Your task to perform on an android device: all mails in gmail Image 0: 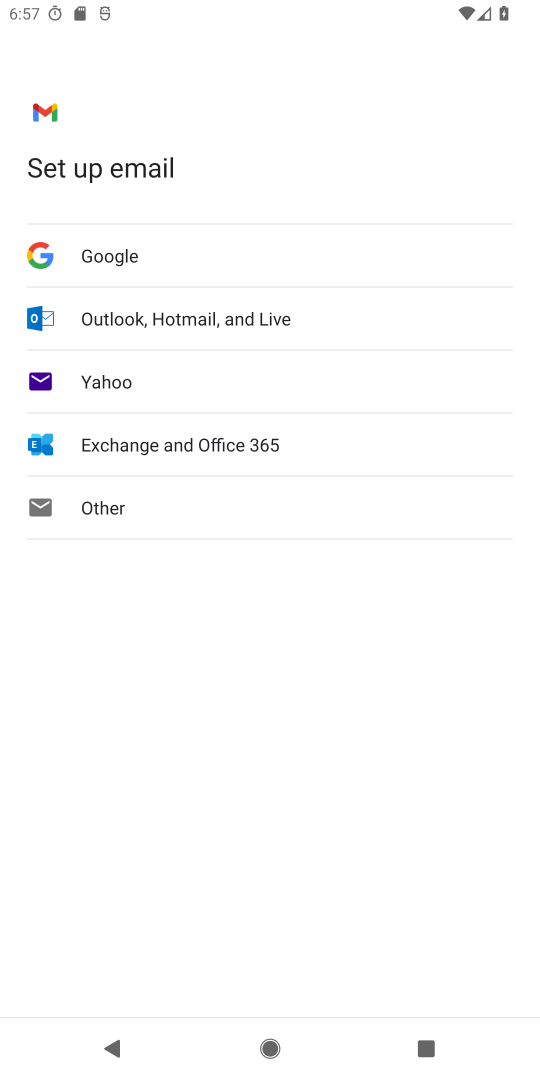
Step 0: press back button
Your task to perform on an android device: all mails in gmail Image 1: 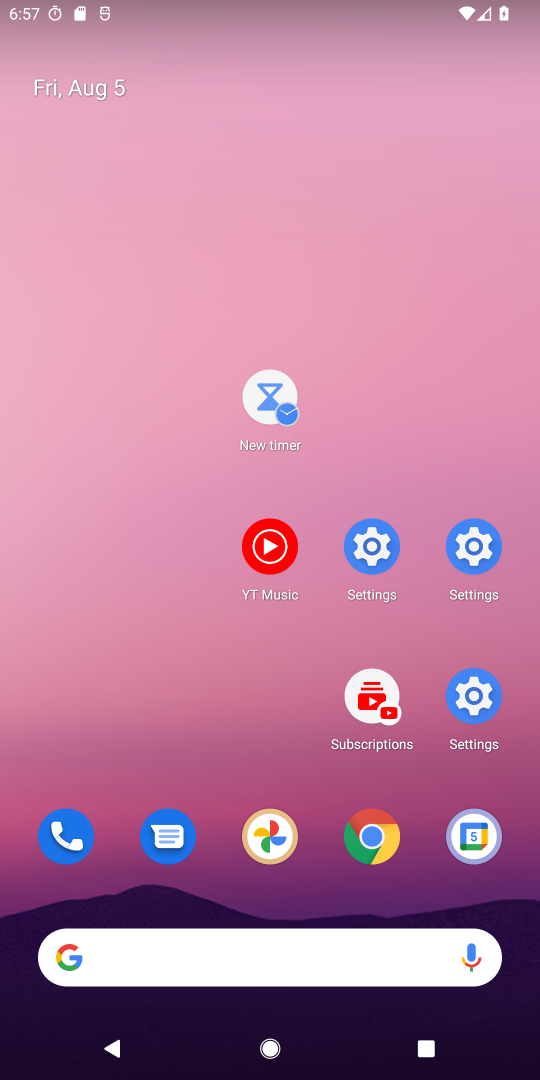
Step 1: drag from (320, 952) to (195, 2)
Your task to perform on an android device: all mails in gmail Image 2: 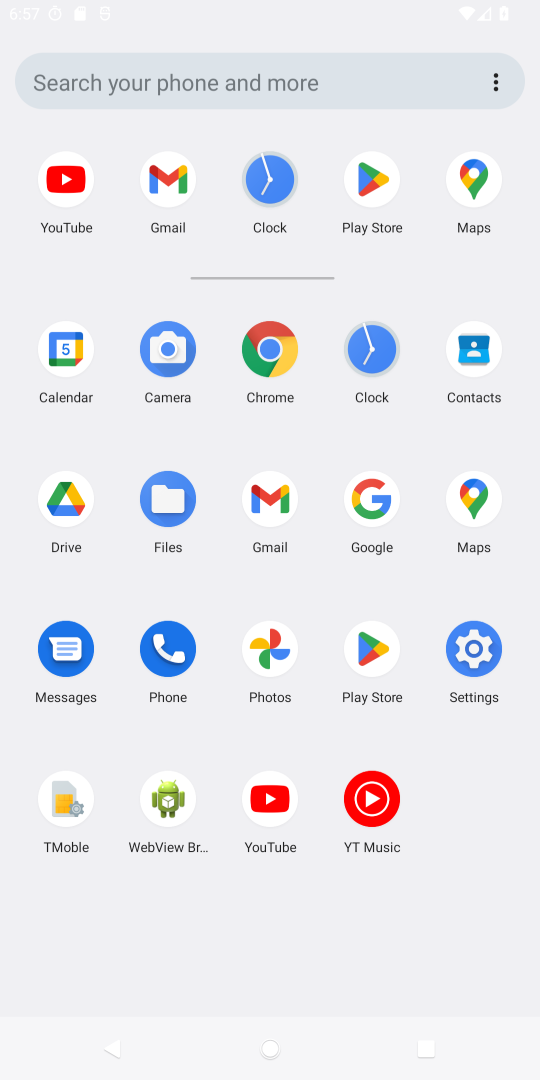
Step 2: drag from (329, 682) to (270, 242)
Your task to perform on an android device: all mails in gmail Image 3: 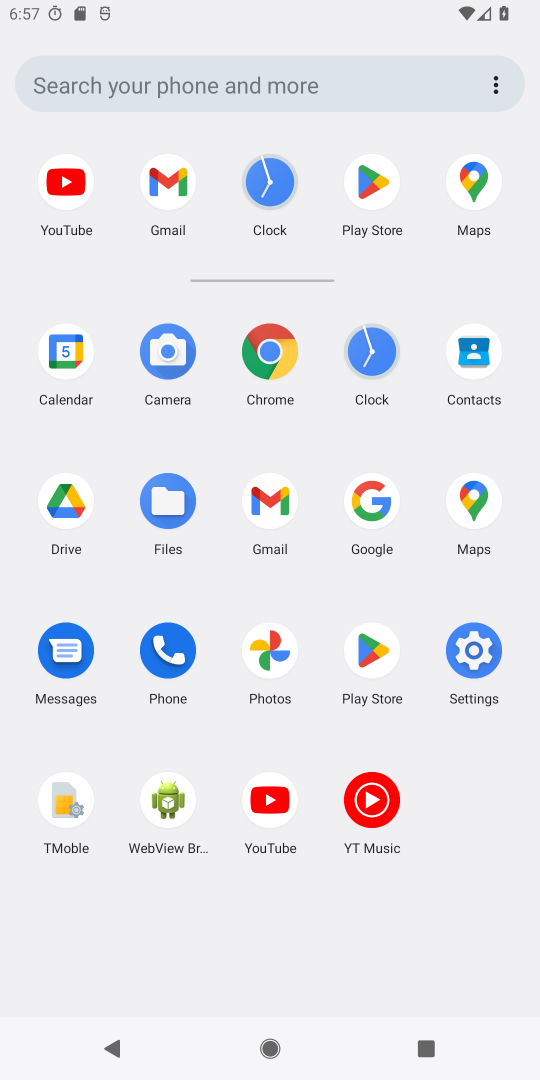
Step 3: click (94, 83)
Your task to perform on an android device: all mails in gmail Image 4: 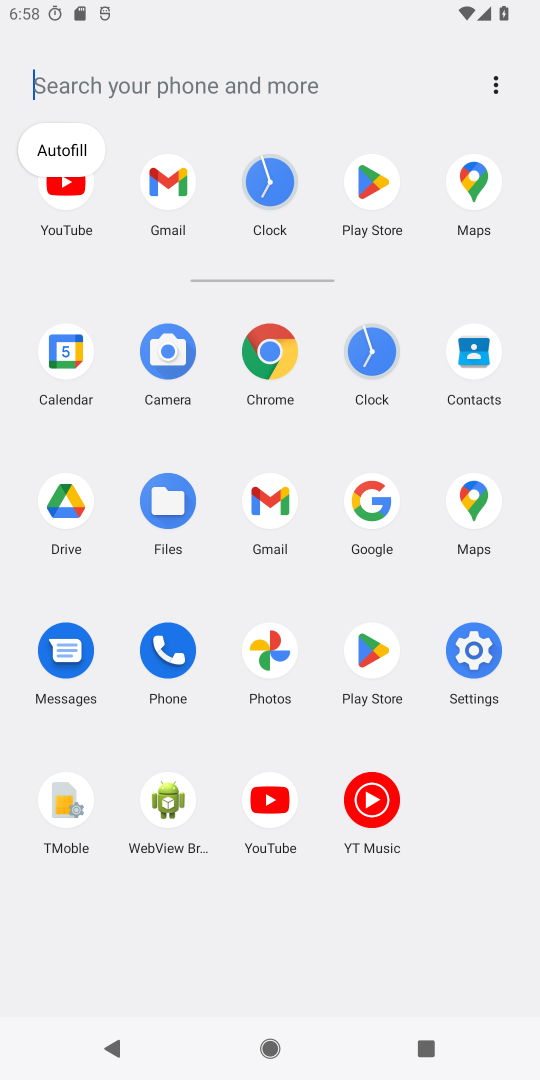
Step 4: click (268, 499)
Your task to perform on an android device: all mails in gmail Image 5: 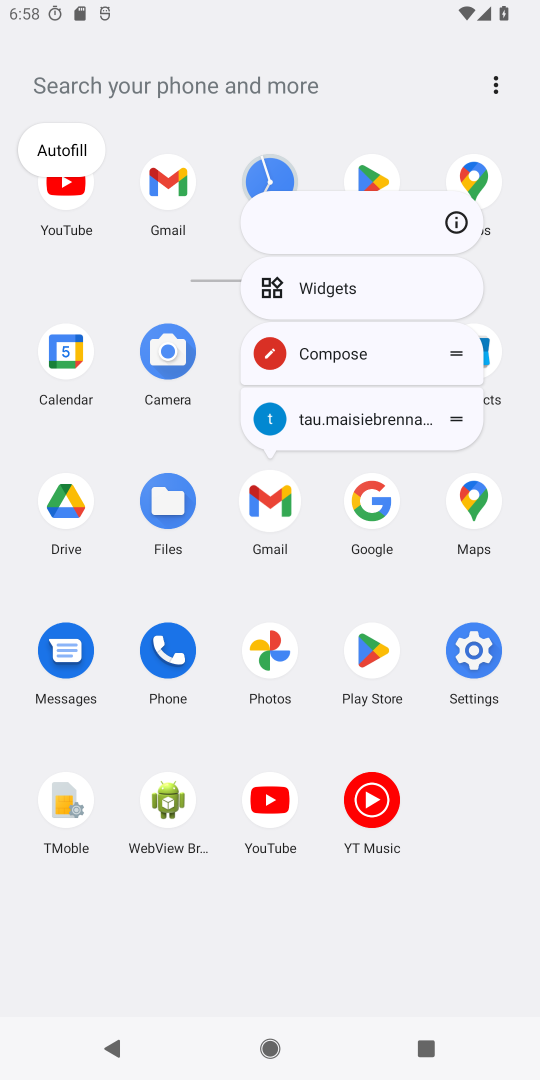
Step 5: click (268, 499)
Your task to perform on an android device: all mails in gmail Image 6: 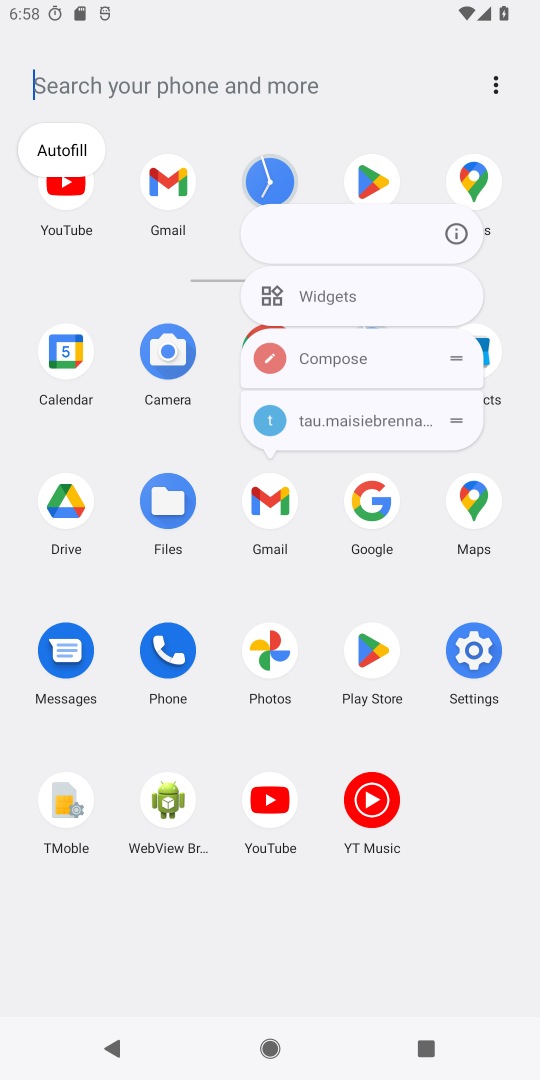
Step 6: click (267, 499)
Your task to perform on an android device: all mails in gmail Image 7: 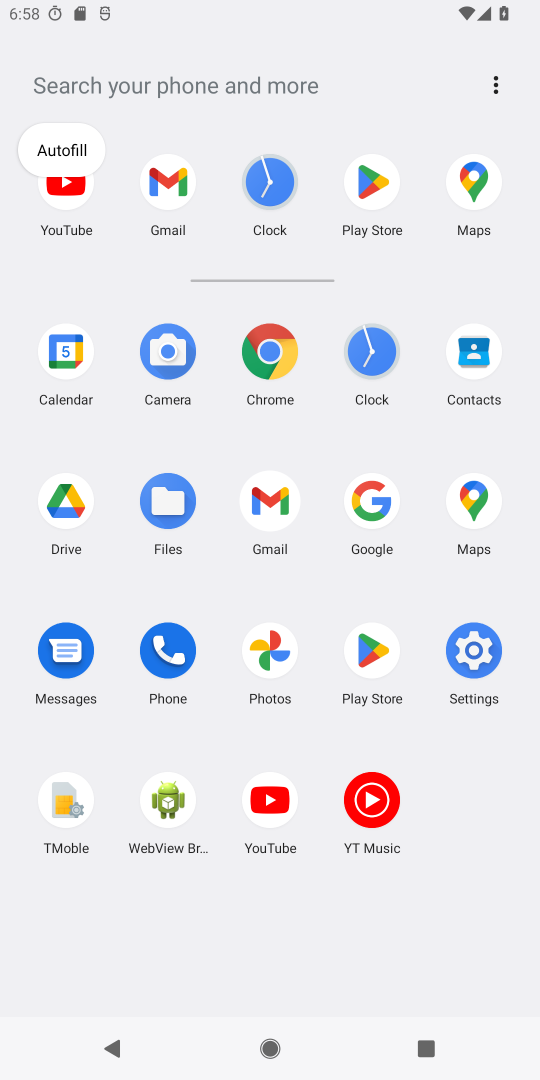
Step 7: click (267, 499)
Your task to perform on an android device: all mails in gmail Image 8: 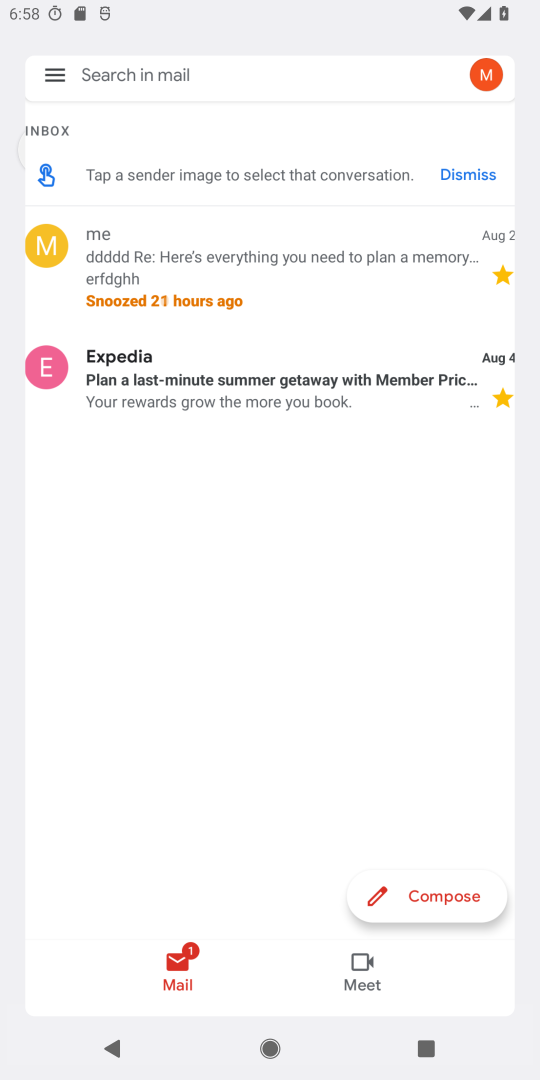
Step 8: click (267, 499)
Your task to perform on an android device: all mails in gmail Image 9: 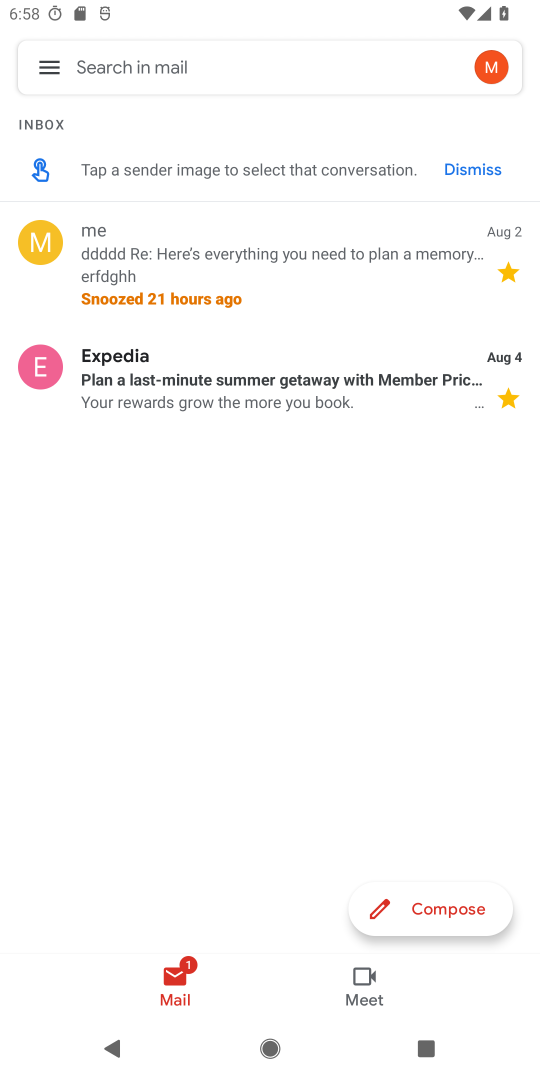
Step 9: click (268, 503)
Your task to perform on an android device: all mails in gmail Image 10: 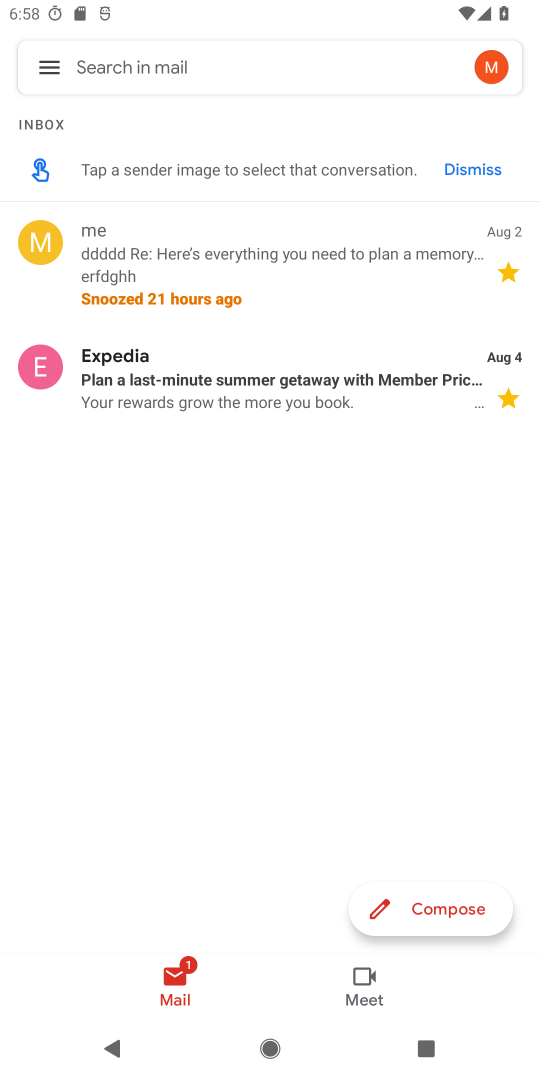
Step 10: click (46, 68)
Your task to perform on an android device: all mails in gmail Image 11: 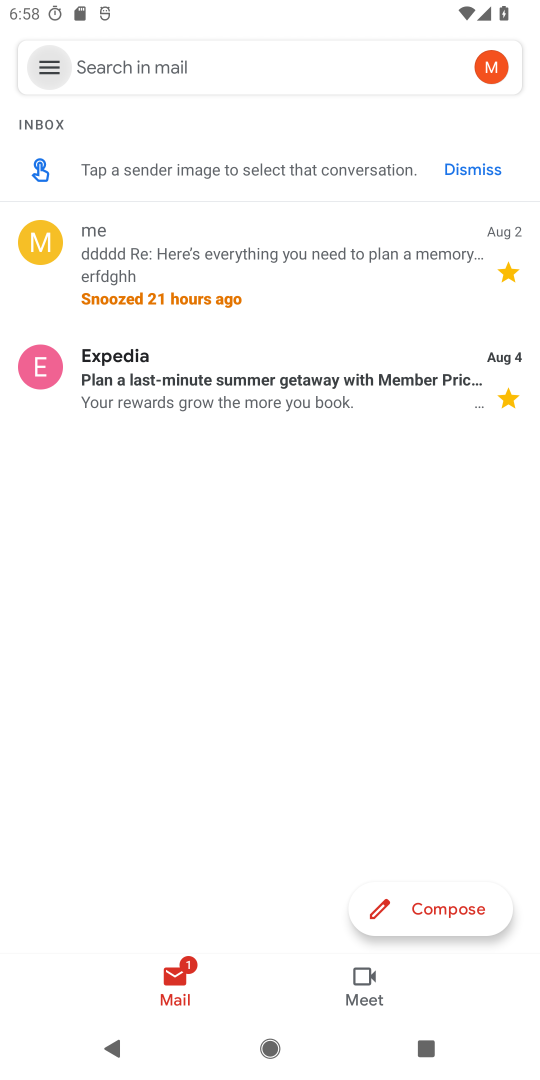
Step 11: click (46, 68)
Your task to perform on an android device: all mails in gmail Image 12: 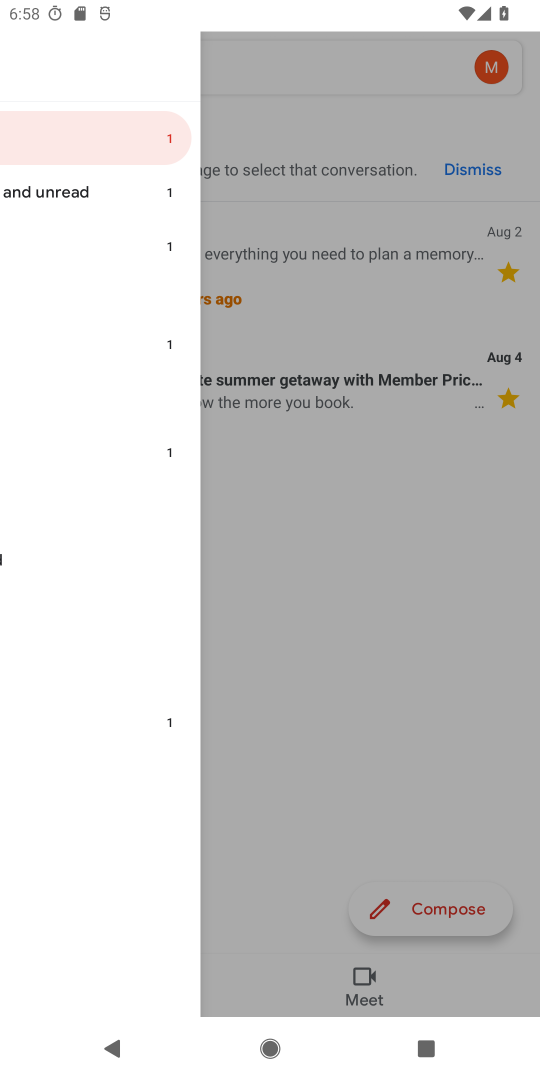
Step 12: click (46, 68)
Your task to perform on an android device: all mails in gmail Image 13: 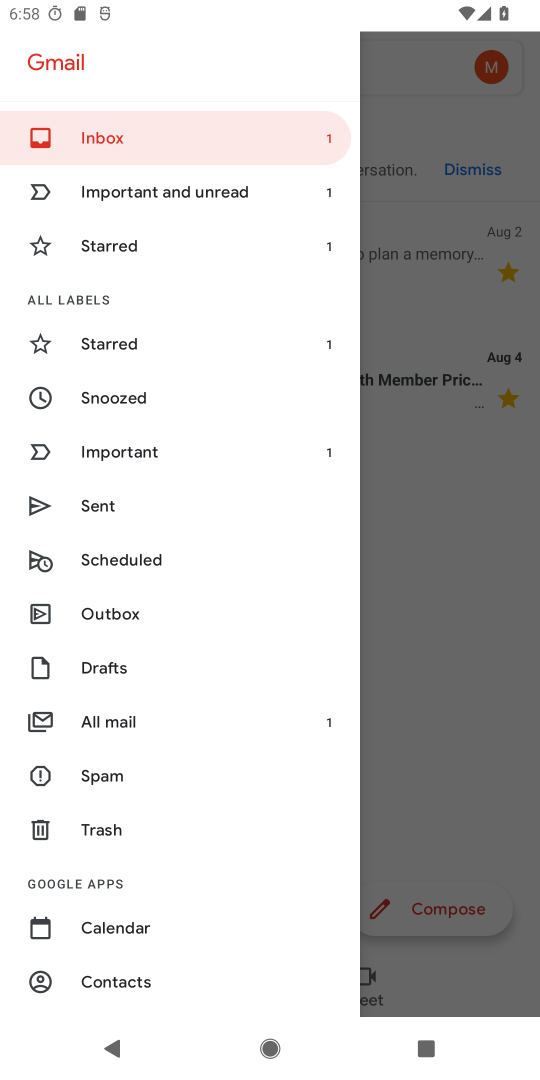
Step 13: click (98, 717)
Your task to perform on an android device: all mails in gmail Image 14: 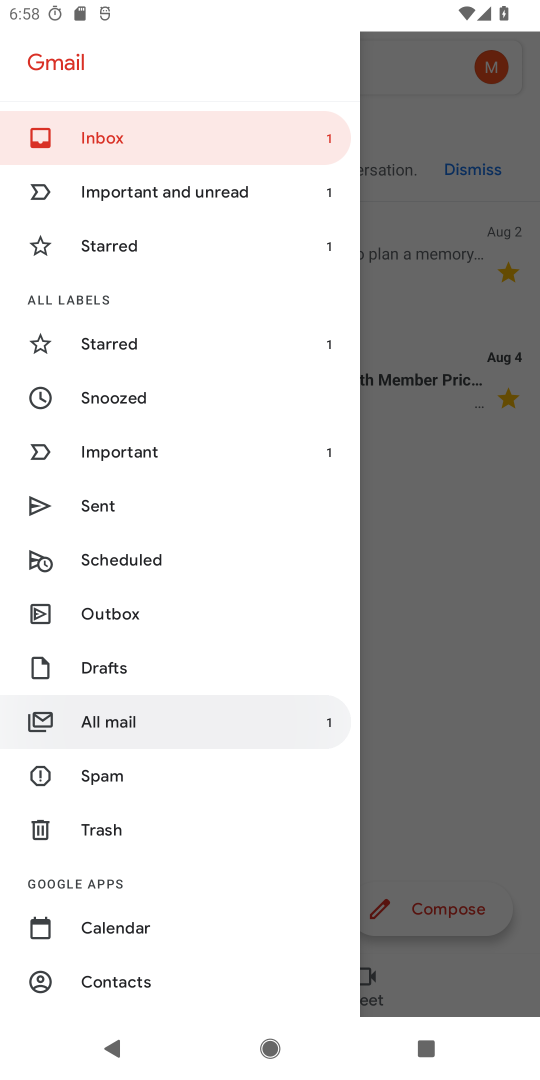
Step 14: click (117, 724)
Your task to perform on an android device: all mails in gmail Image 15: 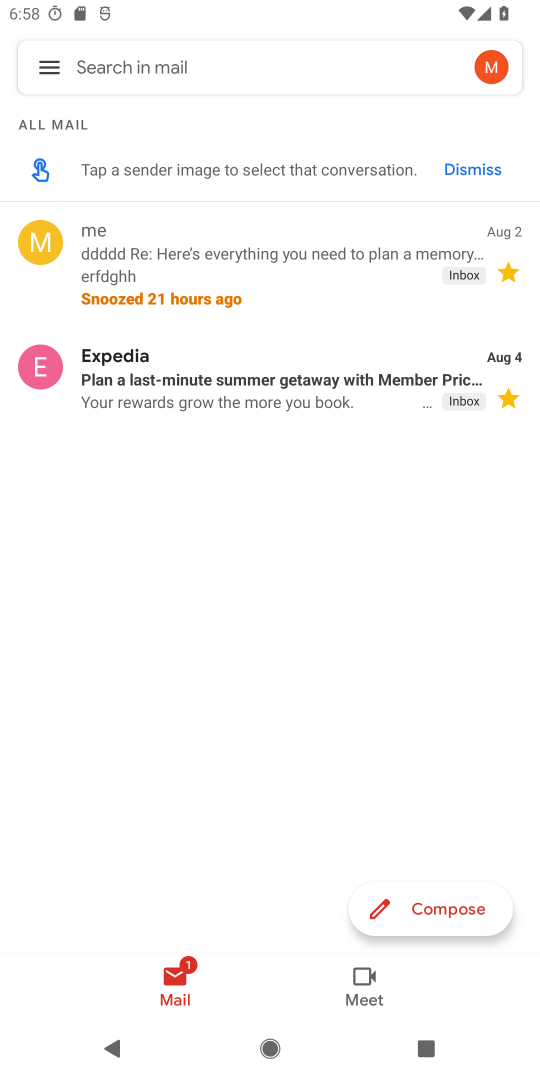
Step 15: click (49, 72)
Your task to perform on an android device: all mails in gmail Image 16: 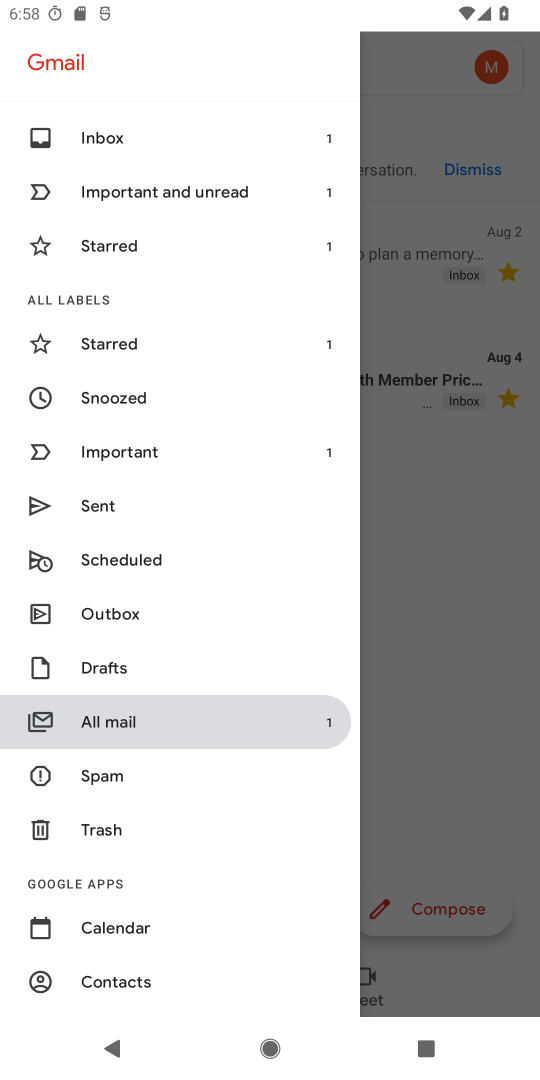
Step 16: task complete